Your task to perform on an android device: turn smart compose on in the gmail app Image 0: 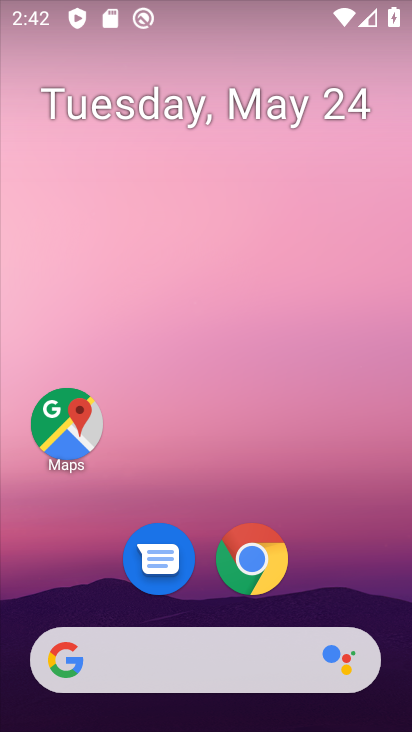
Step 0: drag from (197, 683) to (255, 217)
Your task to perform on an android device: turn smart compose on in the gmail app Image 1: 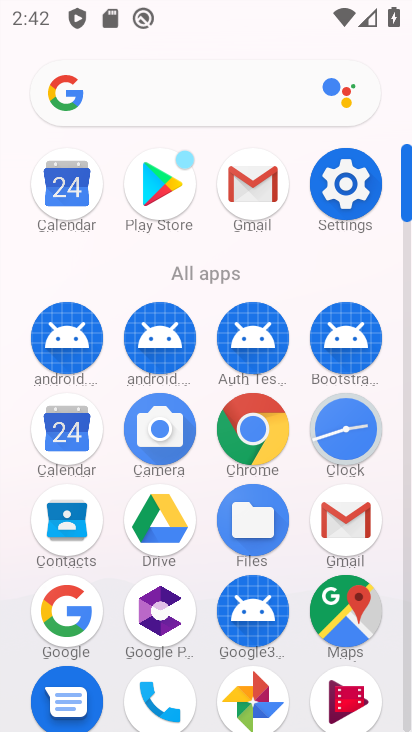
Step 1: click (264, 180)
Your task to perform on an android device: turn smart compose on in the gmail app Image 2: 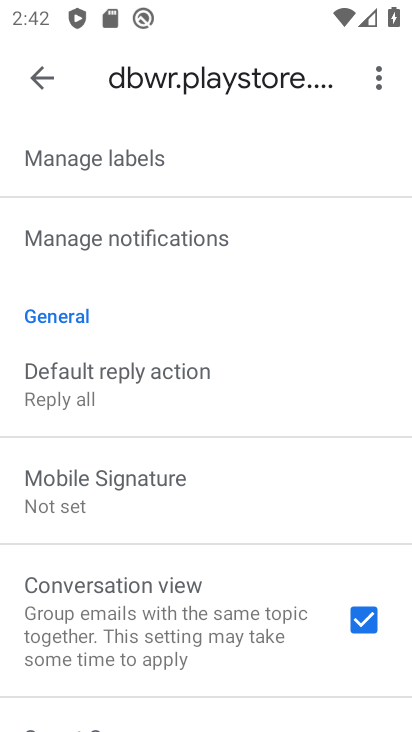
Step 2: task complete